Your task to perform on an android device: Go to wifi settings Image 0: 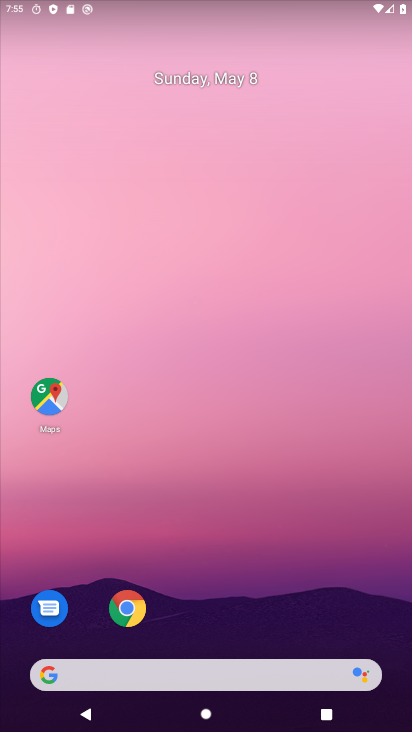
Step 0: drag from (190, 629) to (198, 134)
Your task to perform on an android device: Go to wifi settings Image 1: 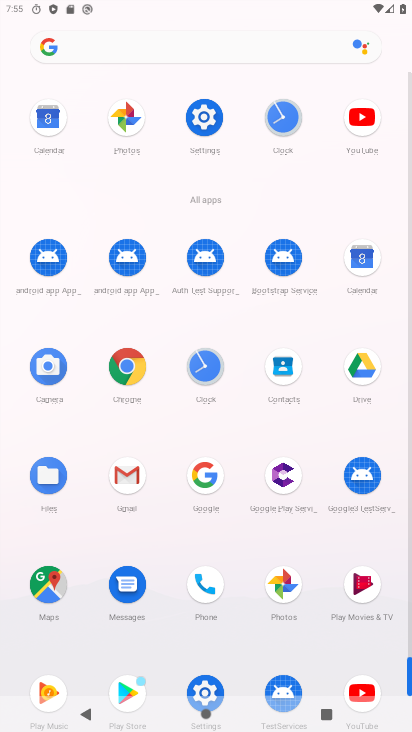
Step 1: click (205, 127)
Your task to perform on an android device: Go to wifi settings Image 2: 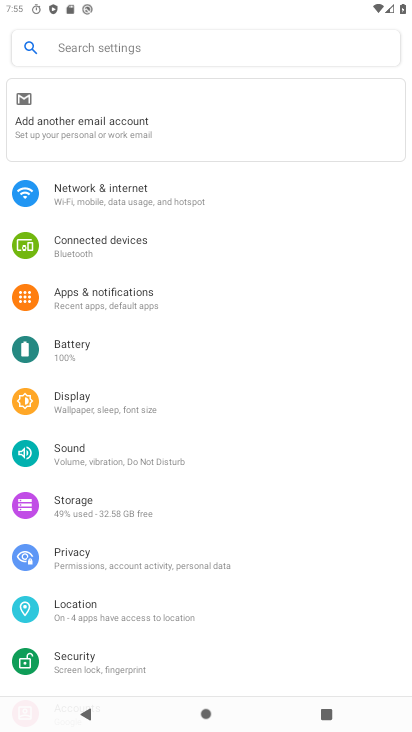
Step 2: click (144, 197)
Your task to perform on an android device: Go to wifi settings Image 3: 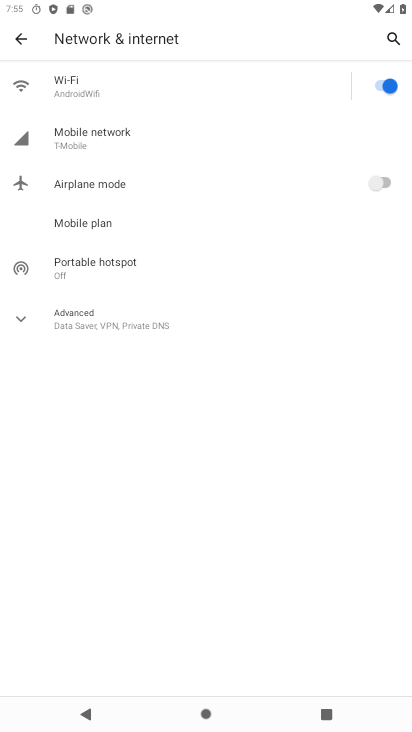
Step 3: click (122, 89)
Your task to perform on an android device: Go to wifi settings Image 4: 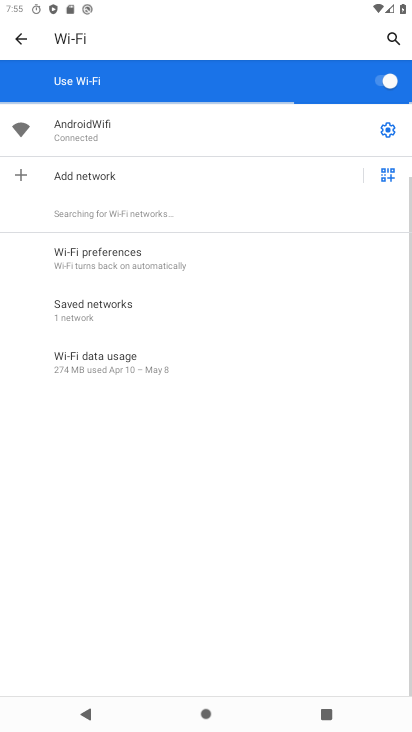
Step 4: task complete